Your task to perform on an android device: stop showing notifications on the lock screen Image 0: 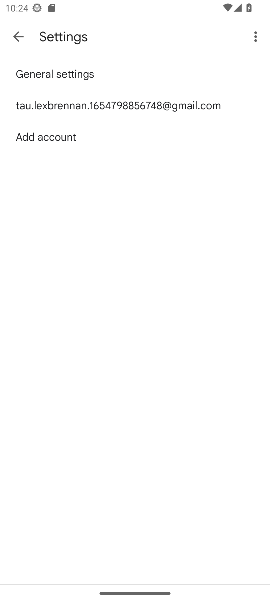
Step 0: press home button
Your task to perform on an android device: stop showing notifications on the lock screen Image 1: 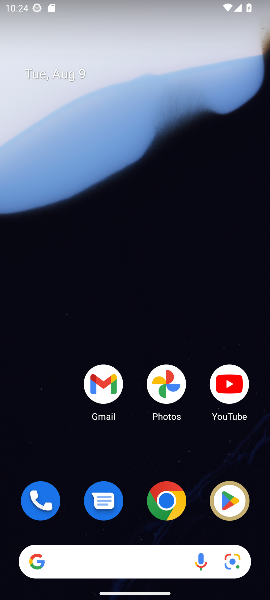
Step 1: click (162, 499)
Your task to perform on an android device: stop showing notifications on the lock screen Image 2: 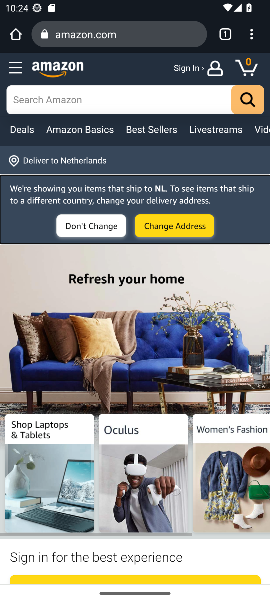
Step 2: press home button
Your task to perform on an android device: stop showing notifications on the lock screen Image 3: 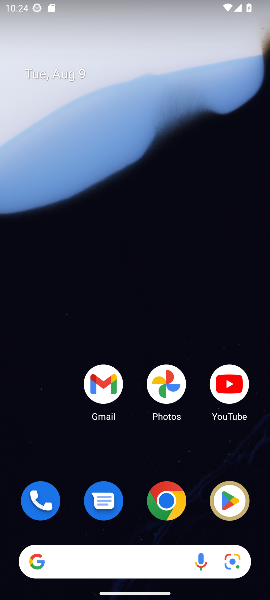
Step 3: drag from (123, 503) to (104, 295)
Your task to perform on an android device: stop showing notifications on the lock screen Image 4: 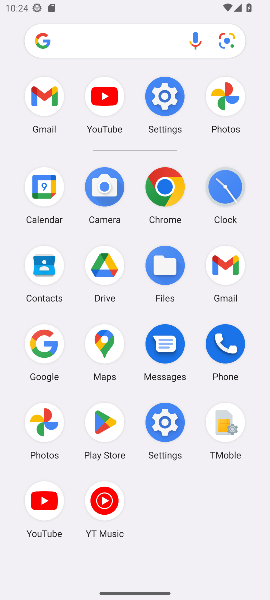
Step 4: click (166, 423)
Your task to perform on an android device: stop showing notifications on the lock screen Image 5: 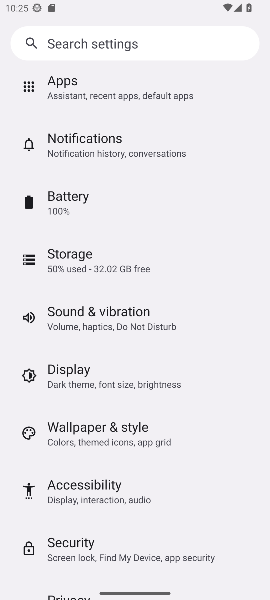
Step 5: click (60, 152)
Your task to perform on an android device: stop showing notifications on the lock screen Image 6: 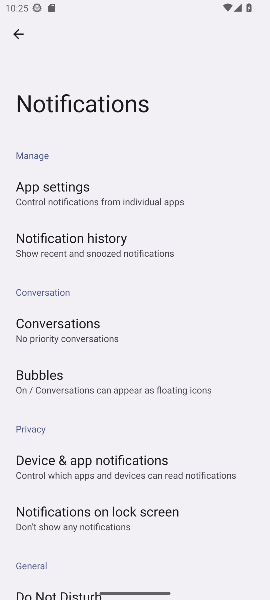
Step 6: click (119, 514)
Your task to perform on an android device: stop showing notifications on the lock screen Image 7: 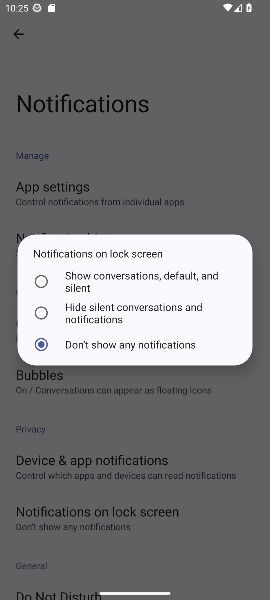
Step 7: task complete